Your task to perform on an android device: change the clock style Image 0: 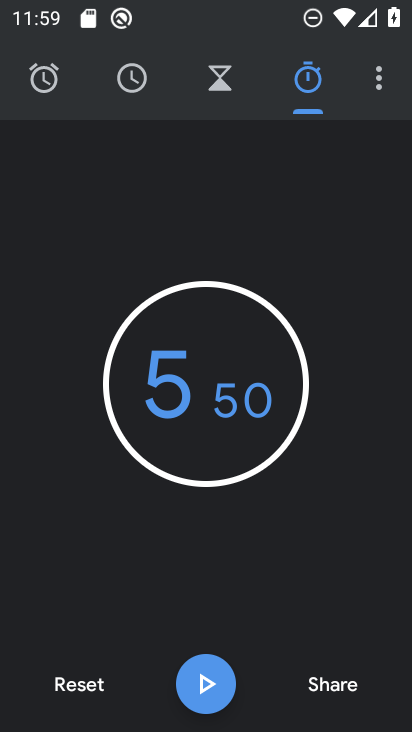
Step 0: press home button
Your task to perform on an android device: change the clock style Image 1: 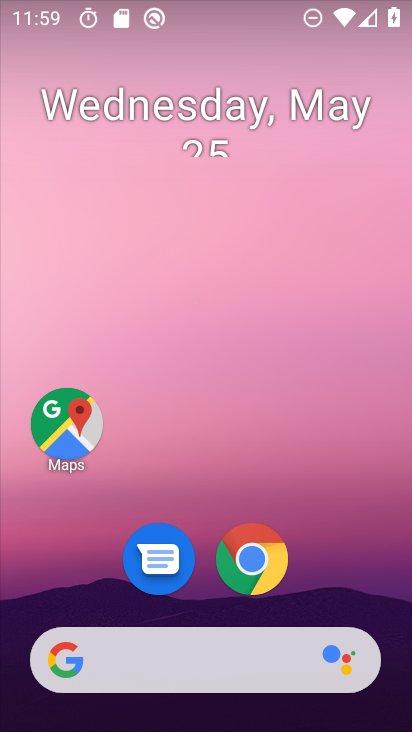
Step 1: drag from (354, 522) to (364, 182)
Your task to perform on an android device: change the clock style Image 2: 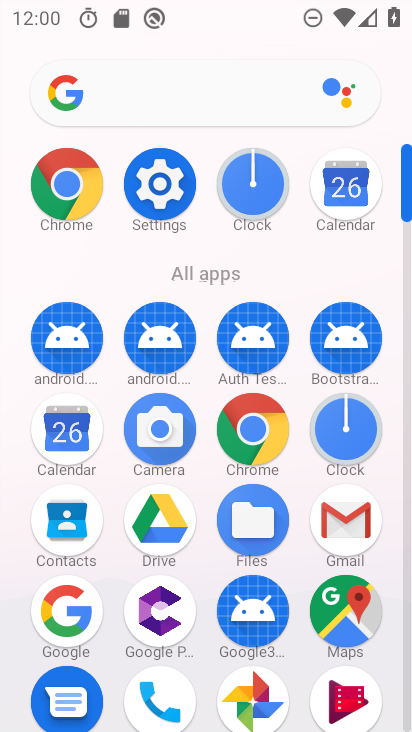
Step 2: click (333, 466)
Your task to perform on an android device: change the clock style Image 3: 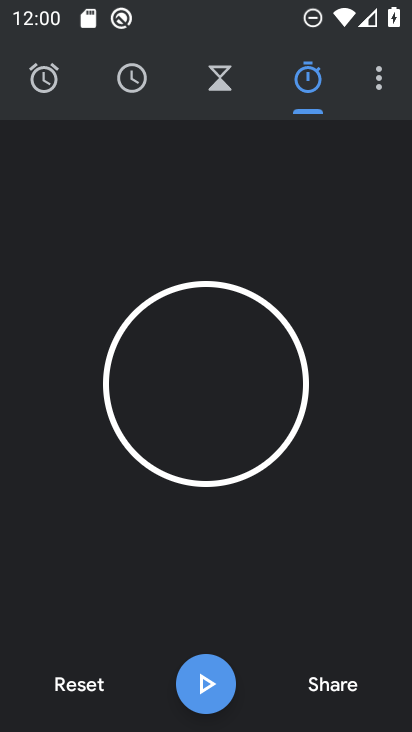
Step 3: drag from (369, 88) to (280, 158)
Your task to perform on an android device: change the clock style Image 4: 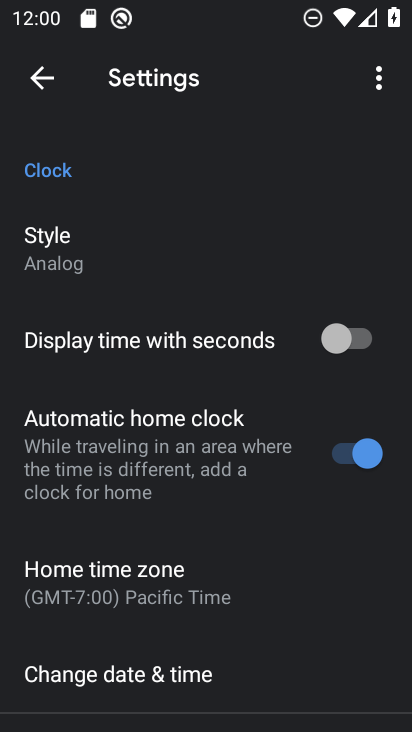
Step 4: click (102, 260)
Your task to perform on an android device: change the clock style Image 5: 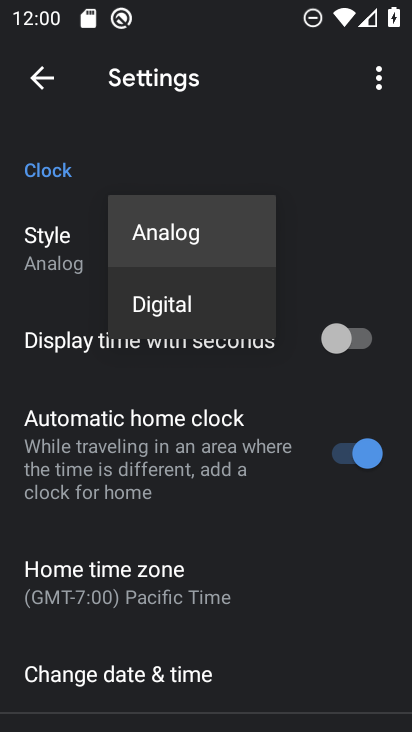
Step 5: click (161, 317)
Your task to perform on an android device: change the clock style Image 6: 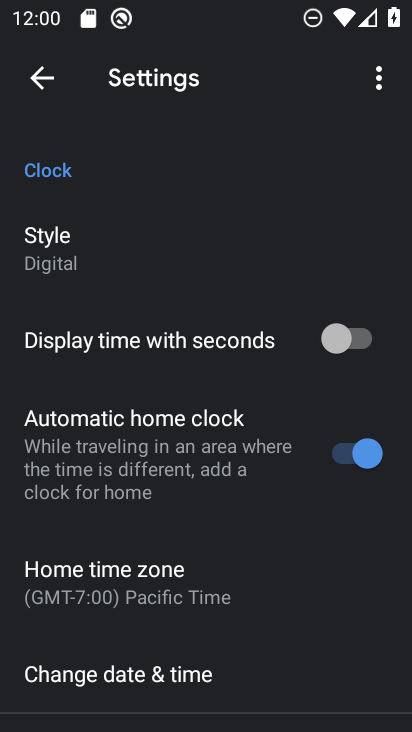
Step 6: task complete